Your task to perform on an android device: turn off notifications settings in the gmail app Image 0: 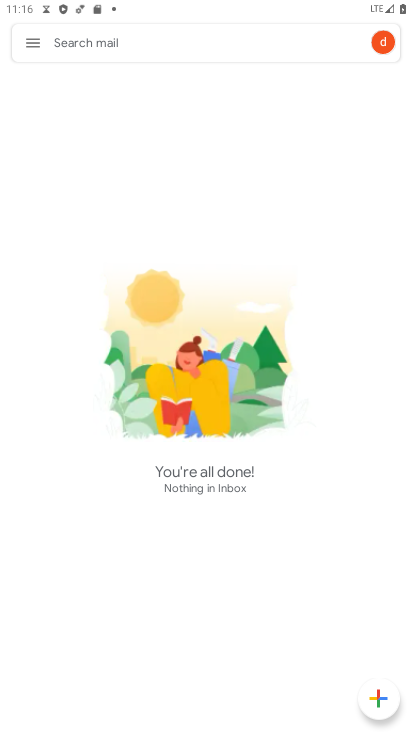
Step 0: press back button
Your task to perform on an android device: turn off notifications settings in the gmail app Image 1: 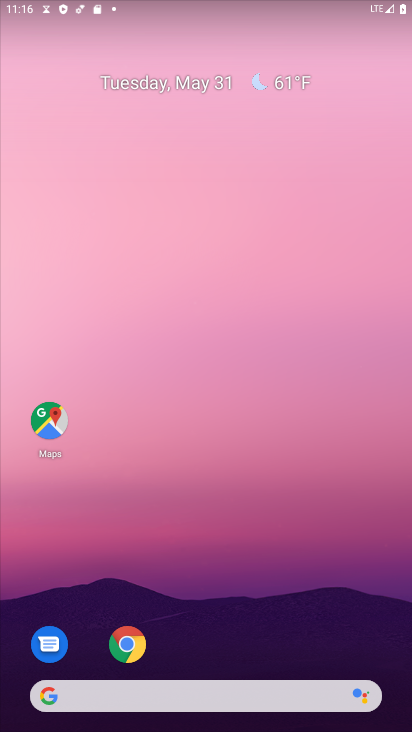
Step 1: drag from (193, 618) to (230, 146)
Your task to perform on an android device: turn off notifications settings in the gmail app Image 2: 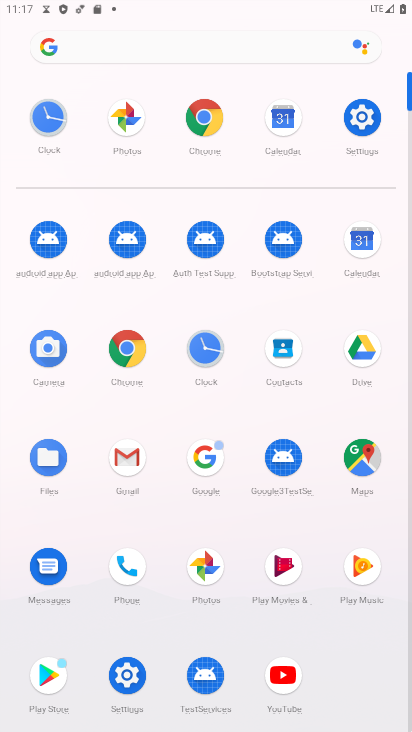
Step 2: click (124, 455)
Your task to perform on an android device: turn off notifications settings in the gmail app Image 3: 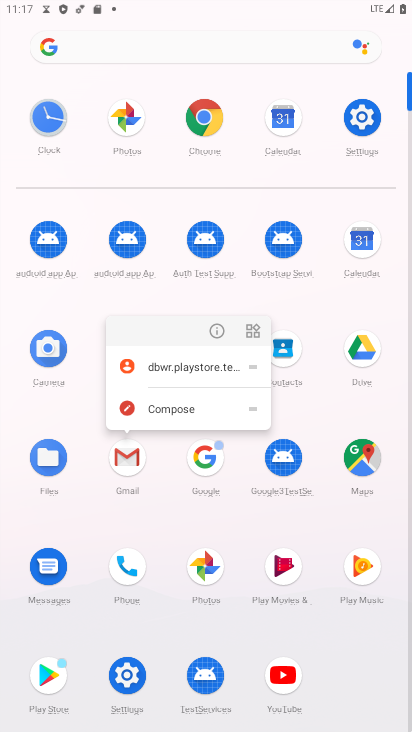
Step 3: click (215, 334)
Your task to perform on an android device: turn off notifications settings in the gmail app Image 4: 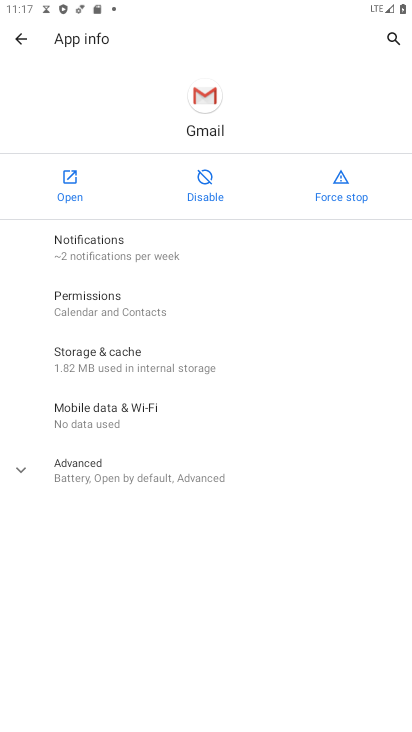
Step 4: click (178, 250)
Your task to perform on an android device: turn off notifications settings in the gmail app Image 5: 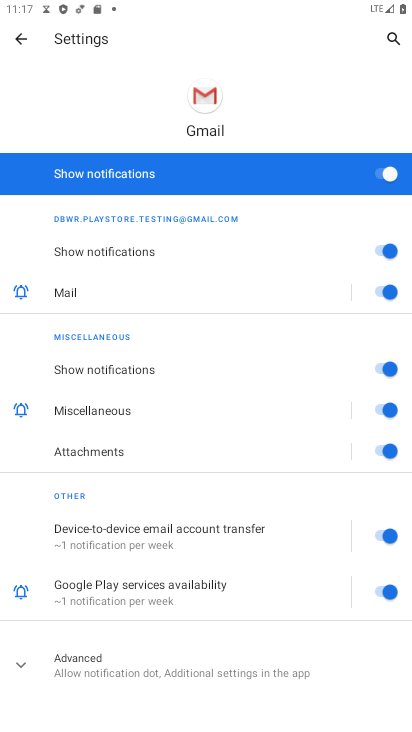
Step 5: click (388, 172)
Your task to perform on an android device: turn off notifications settings in the gmail app Image 6: 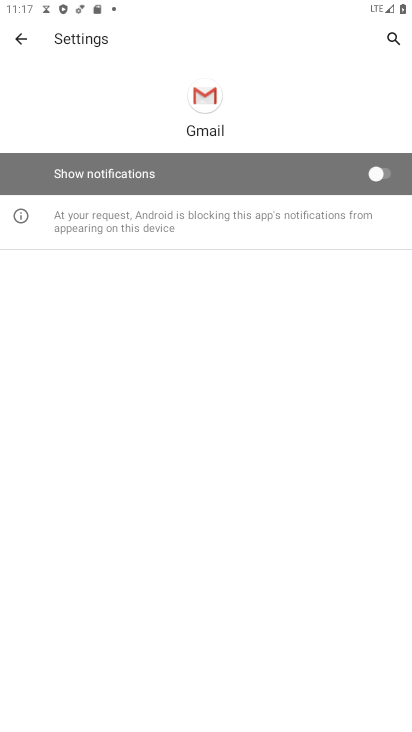
Step 6: task complete